Your task to perform on an android device: set default search engine in the chrome app Image 0: 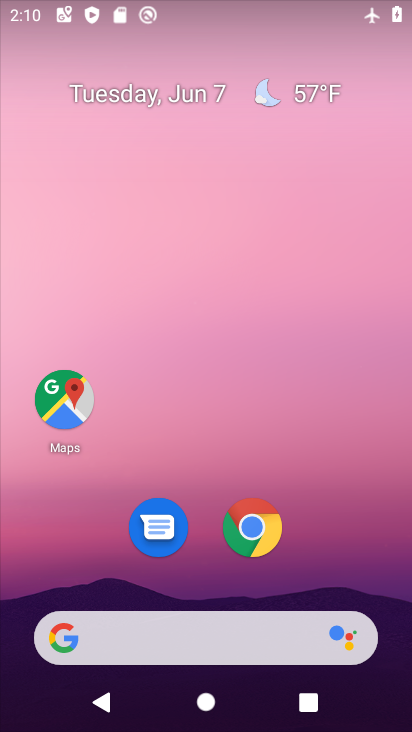
Step 0: click (277, 521)
Your task to perform on an android device: set default search engine in the chrome app Image 1: 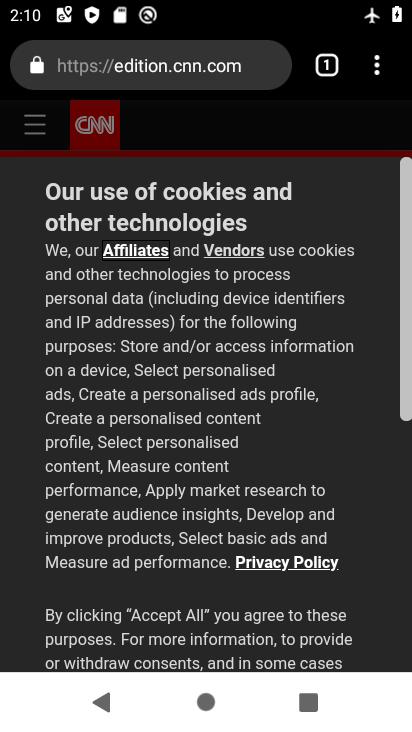
Step 1: click (385, 71)
Your task to perform on an android device: set default search engine in the chrome app Image 2: 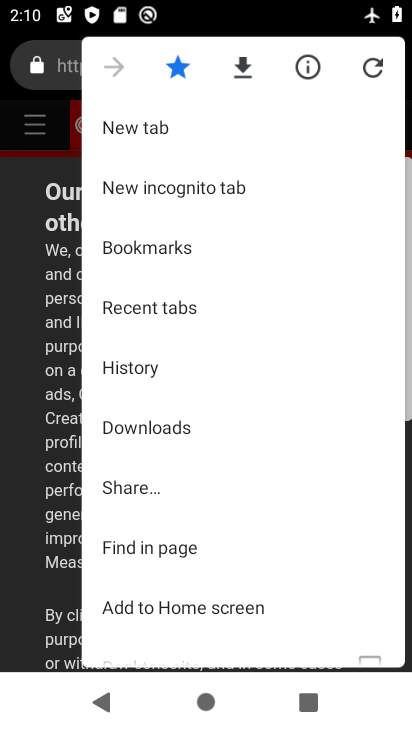
Step 2: drag from (225, 625) to (177, 279)
Your task to perform on an android device: set default search engine in the chrome app Image 3: 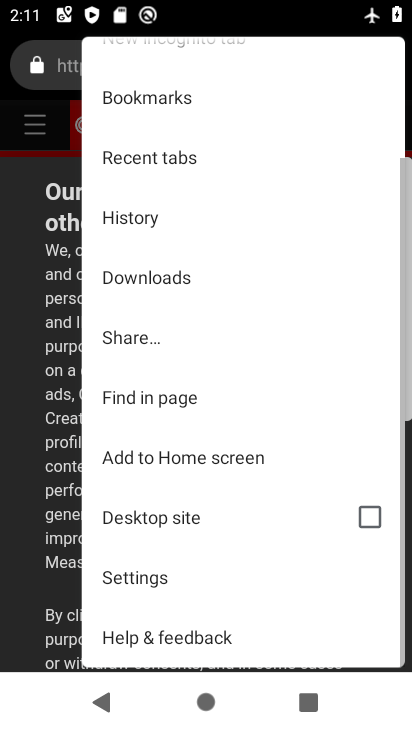
Step 3: click (198, 584)
Your task to perform on an android device: set default search engine in the chrome app Image 4: 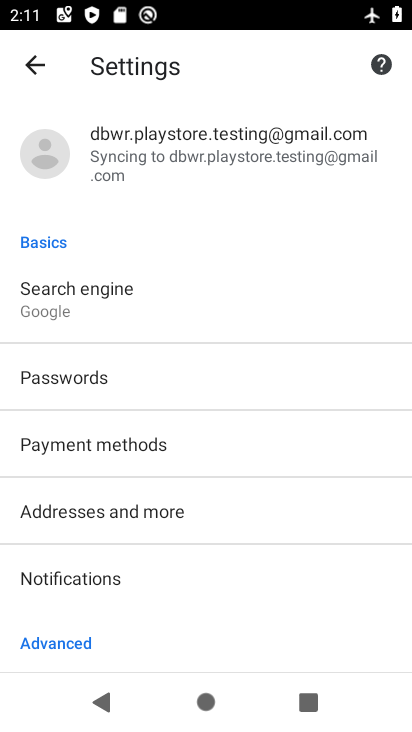
Step 4: drag from (218, 607) to (209, 527)
Your task to perform on an android device: set default search engine in the chrome app Image 5: 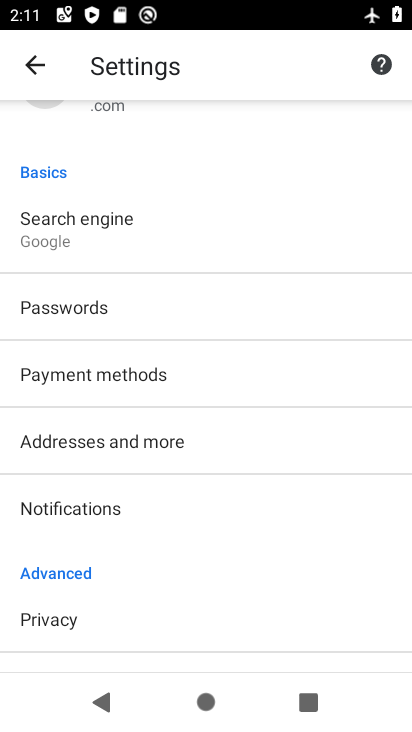
Step 5: click (131, 245)
Your task to perform on an android device: set default search engine in the chrome app Image 6: 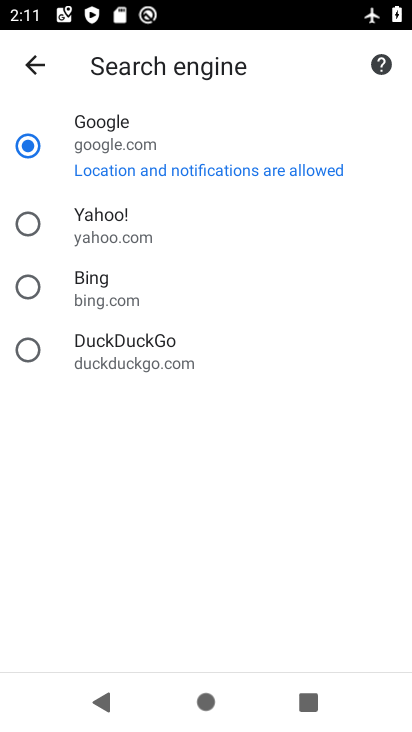
Step 6: click (158, 229)
Your task to perform on an android device: set default search engine in the chrome app Image 7: 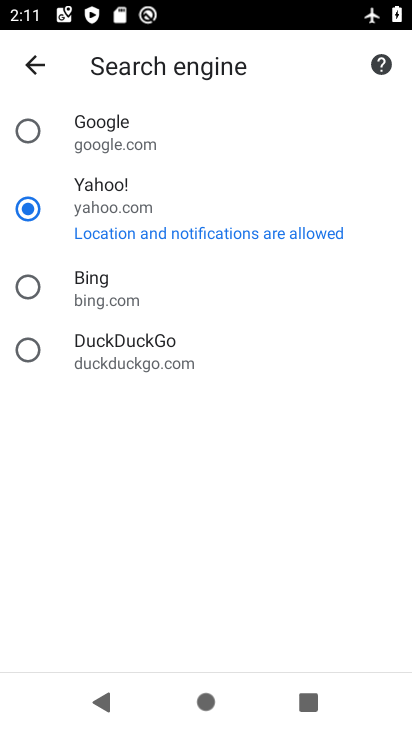
Step 7: task complete